Your task to perform on an android device: Go to internet settings Image 0: 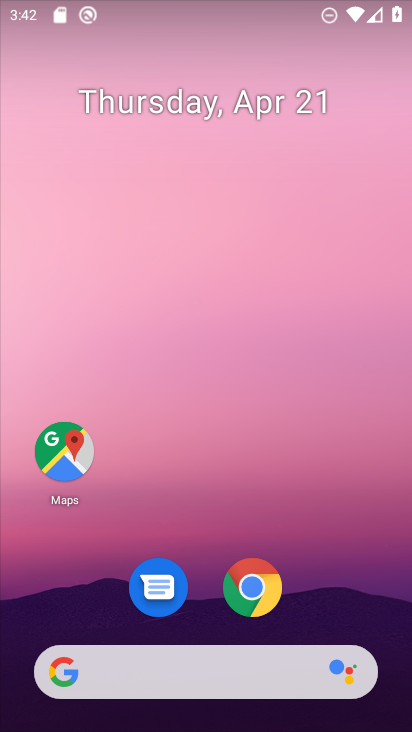
Step 0: drag from (344, 575) to (357, 0)
Your task to perform on an android device: Go to internet settings Image 1: 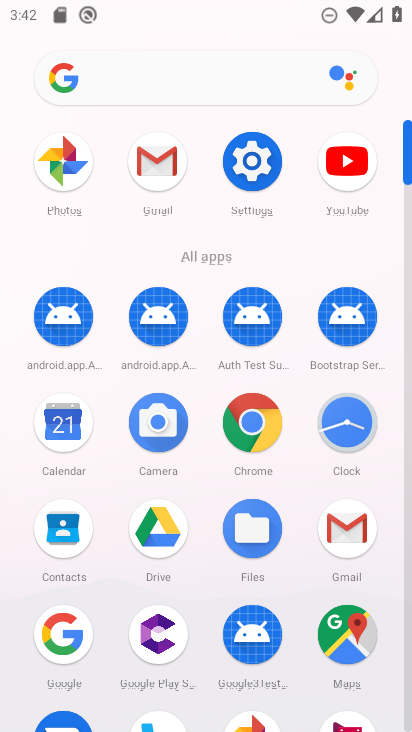
Step 1: click (246, 162)
Your task to perform on an android device: Go to internet settings Image 2: 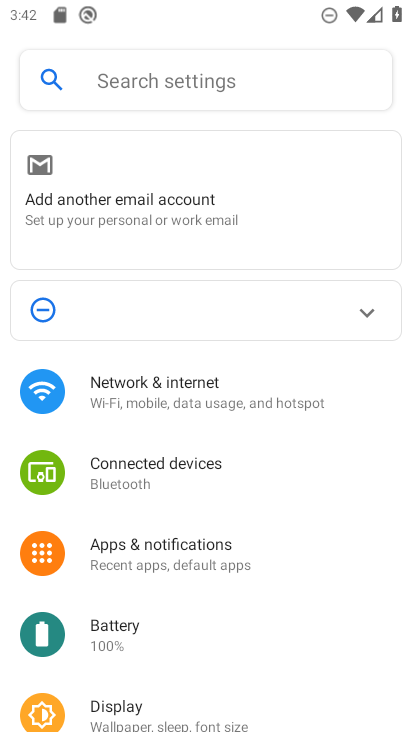
Step 2: click (171, 387)
Your task to perform on an android device: Go to internet settings Image 3: 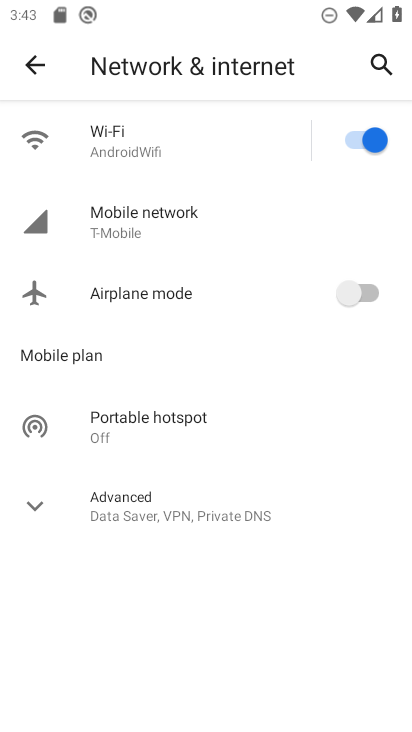
Step 3: click (39, 511)
Your task to perform on an android device: Go to internet settings Image 4: 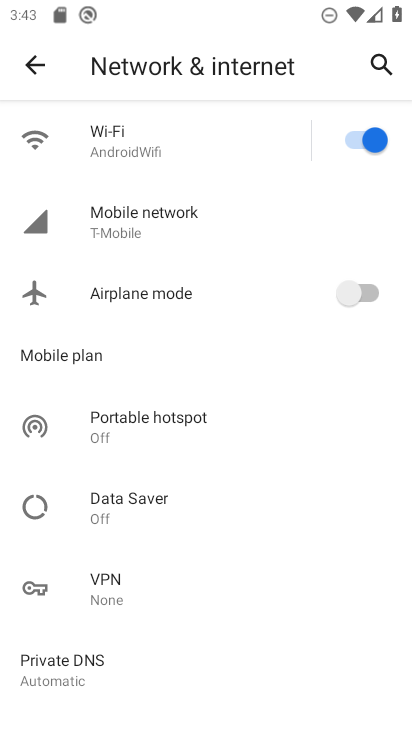
Step 4: task complete